Your task to perform on an android device: check storage Image 0: 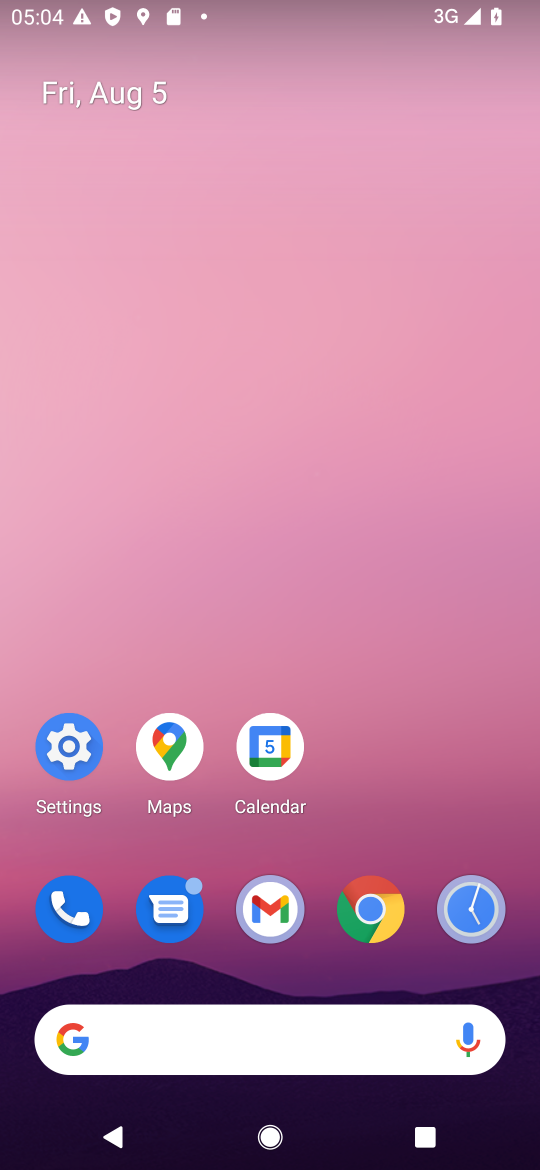
Step 0: click (65, 742)
Your task to perform on an android device: check storage Image 1: 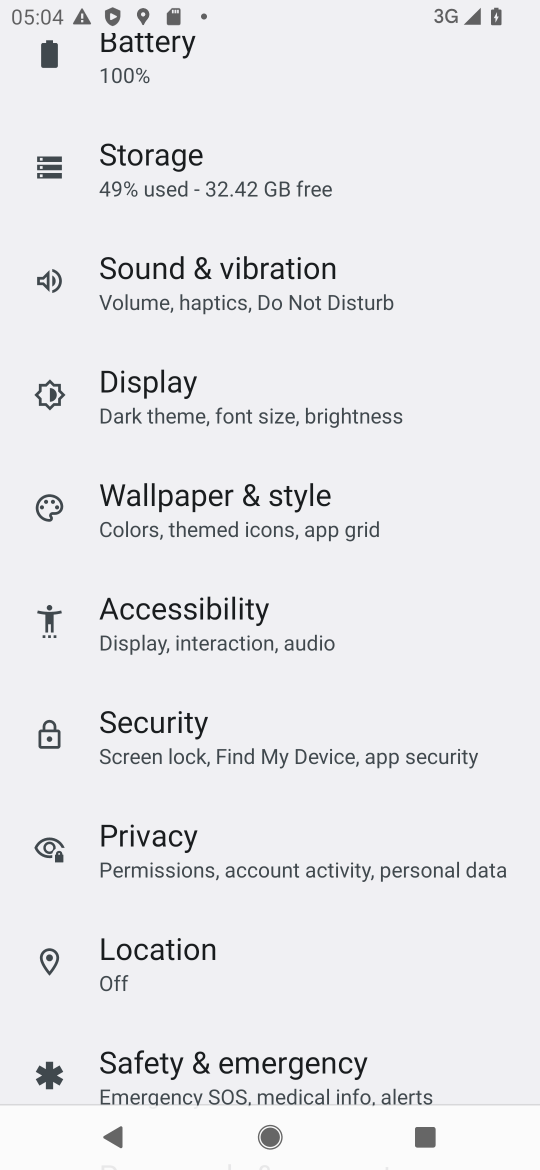
Step 1: click (150, 160)
Your task to perform on an android device: check storage Image 2: 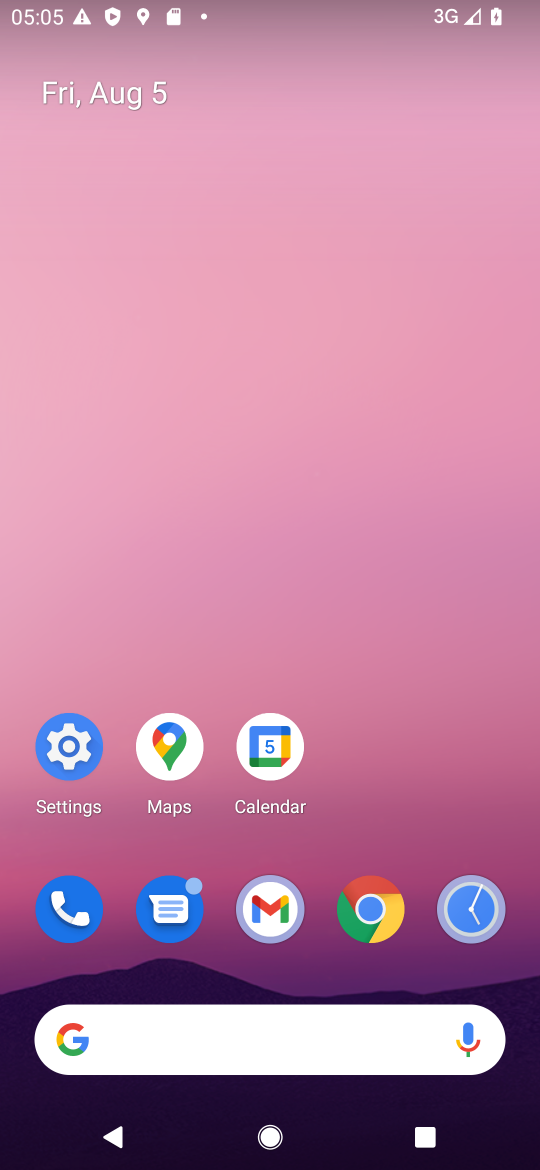
Step 2: task complete